Your task to perform on an android device: Go to ESPN.com Image 0: 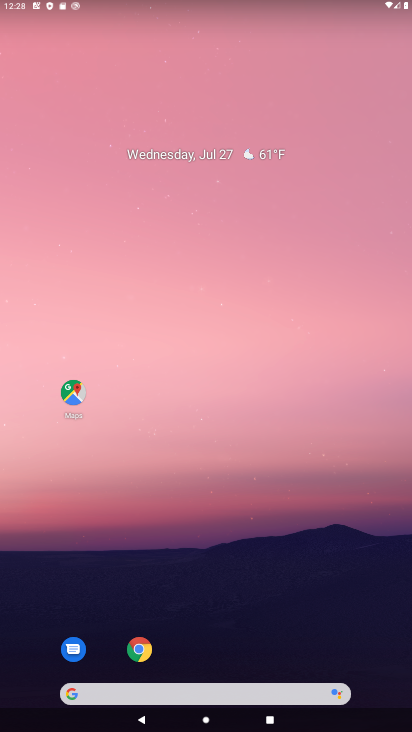
Step 0: drag from (188, 637) to (149, 217)
Your task to perform on an android device: Go to ESPN.com Image 1: 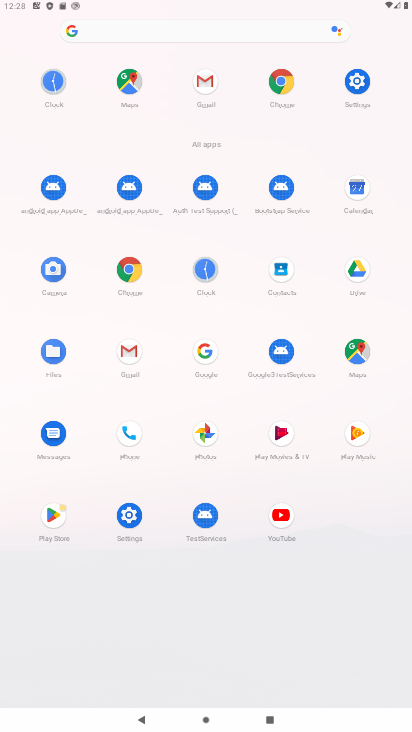
Step 1: click (267, 84)
Your task to perform on an android device: Go to ESPN.com Image 2: 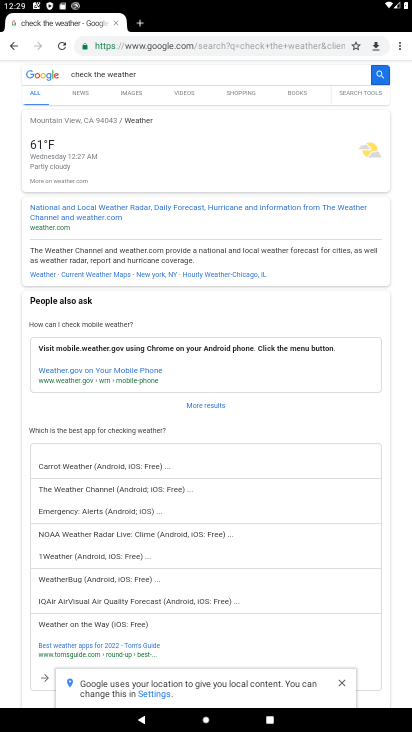
Step 2: click (137, 18)
Your task to perform on an android device: Go to ESPN.com Image 3: 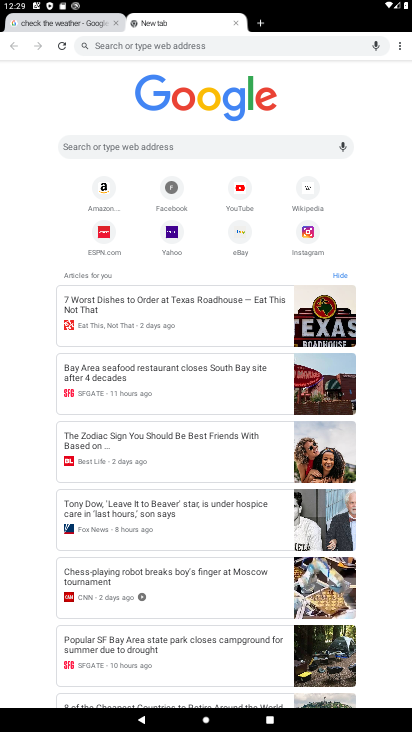
Step 3: click (105, 233)
Your task to perform on an android device: Go to ESPN.com Image 4: 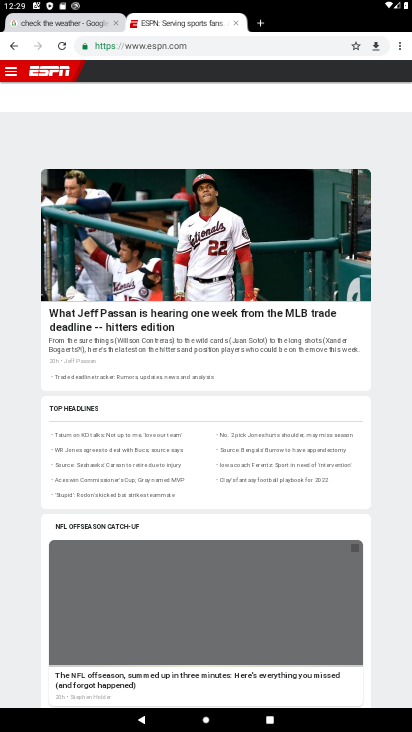
Step 4: task complete